Your task to perform on an android device: Open Yahoo.com Image 0: 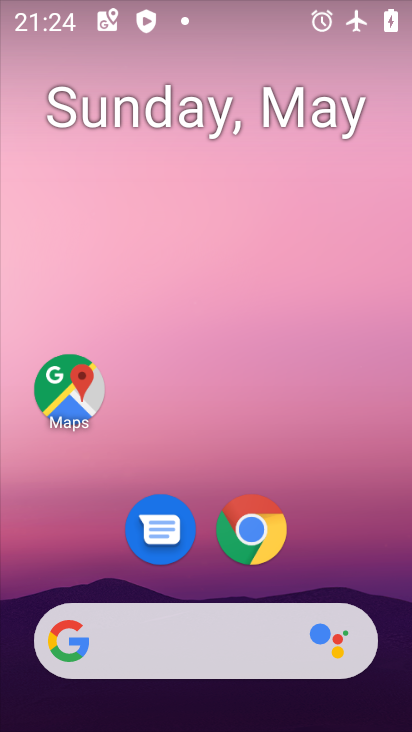
Step 0: click (242, 522)
Your task to perform on an android device: Open Yahoo.com Image 1: 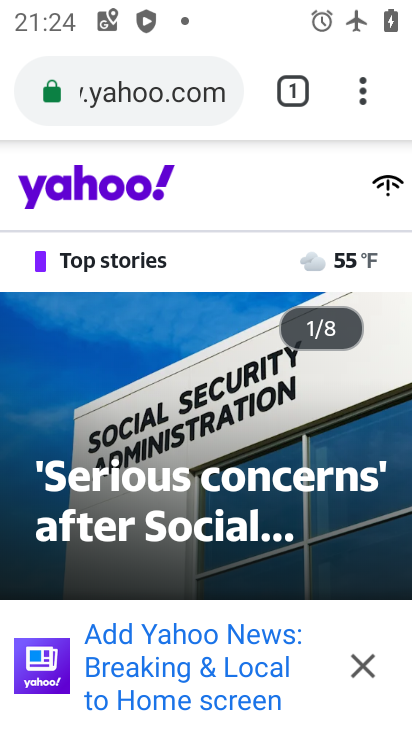
Step 1: task complete